Your task to perform on an android device: turn on sleep mode Image 0: 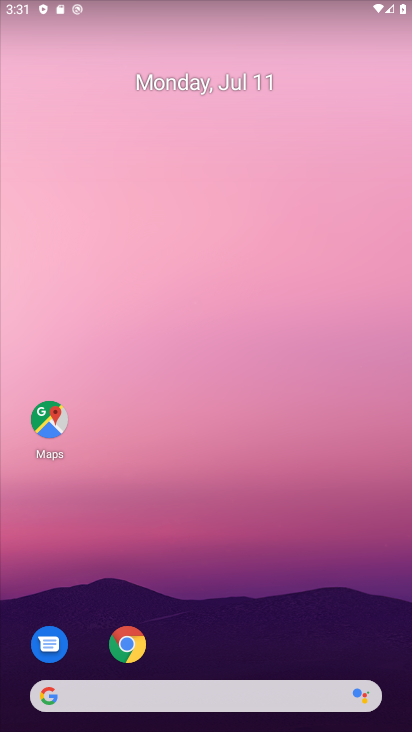
Step 0: drag from (217, 663) to (190, 132)
Your task to perform on an android device: turn on sleep mode Image 1: 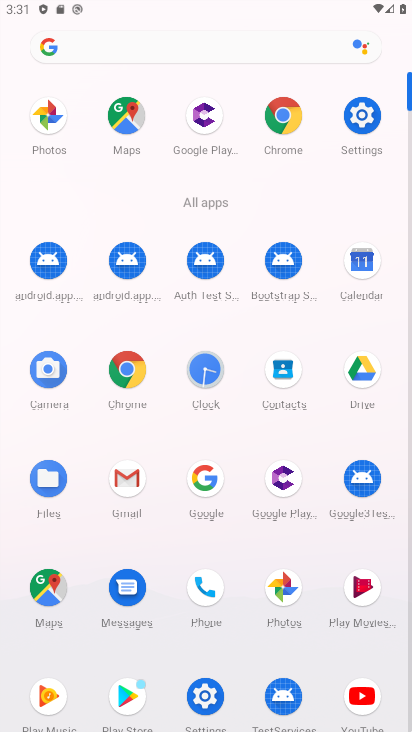
Step 1: click (358, 110)
Your task to perform on an android device: turn on sleep mode Image 2: 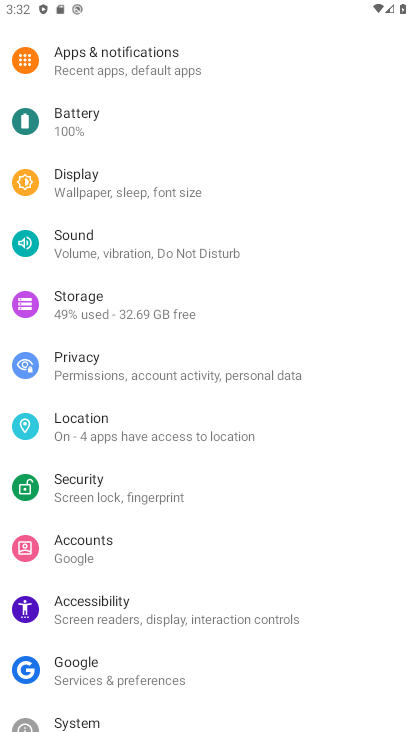
Step 2: click (73, 187)
Your task to perform on an android device: turn on sleep mode Image 3: 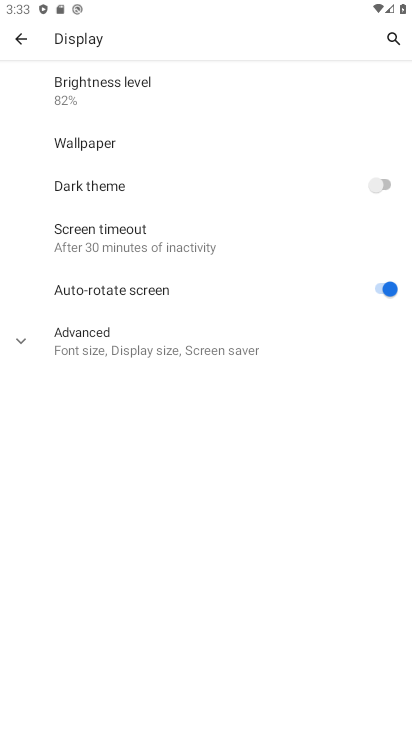
Step 3: task complete